Your task to perform on an android device: install app "YouTube Kids" Image 0: 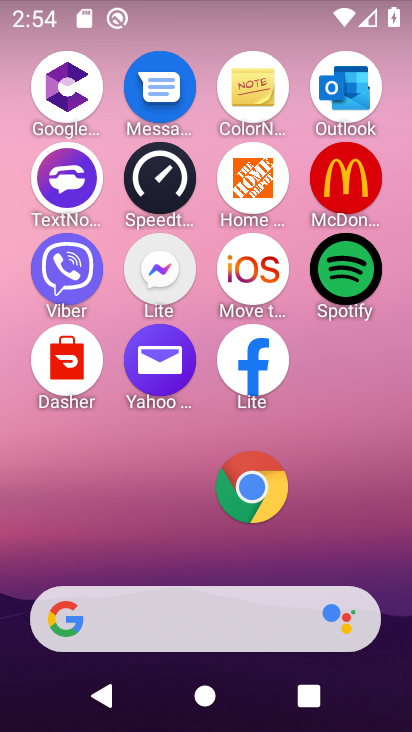
Step 0: drag from (191, 410) to (219, 125)
Your task to perform on an android device: install app "YouTube Kids" Image 1: 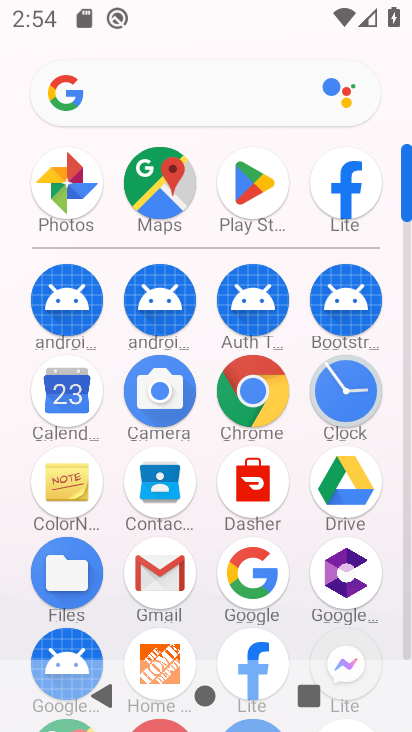
Step 1: click (243, 173)
Your task to perform on an android device: install app "YouTube Kids" Image 2: 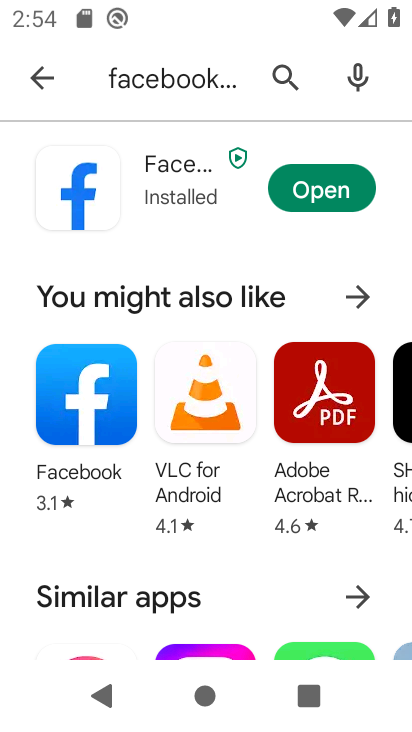
Step 2: click (48, 76)
Your task to perform on an android device: install app "YouTube Kids" Image 3: 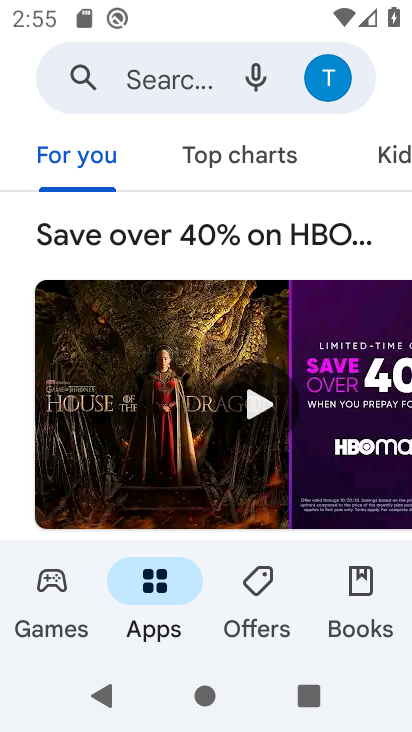
Step 3: click (182, 69)
Your task to perform on an android device: install app "YouTube Kids" Image 4: 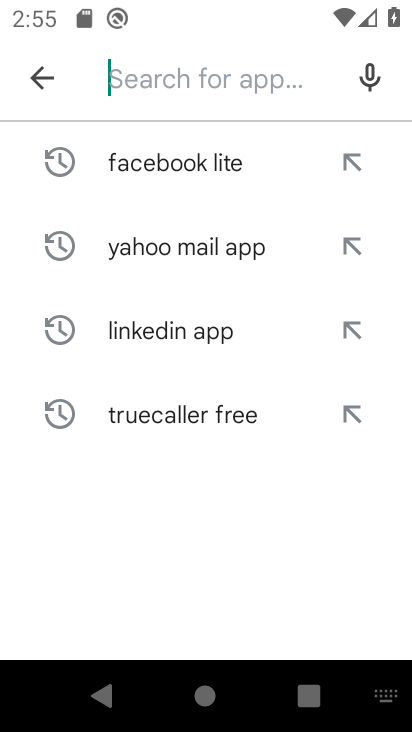
Step 4: type "YouTube Kids "
Your task to perform on an android device: install app "YouTube Kids" Image 5: 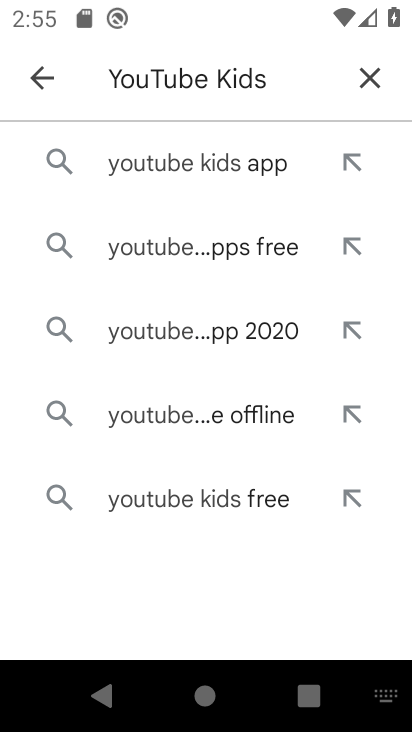
Step 5: click (218, 159)
Your task to perform on an android device: install app "YouTube Kids" Image 6: 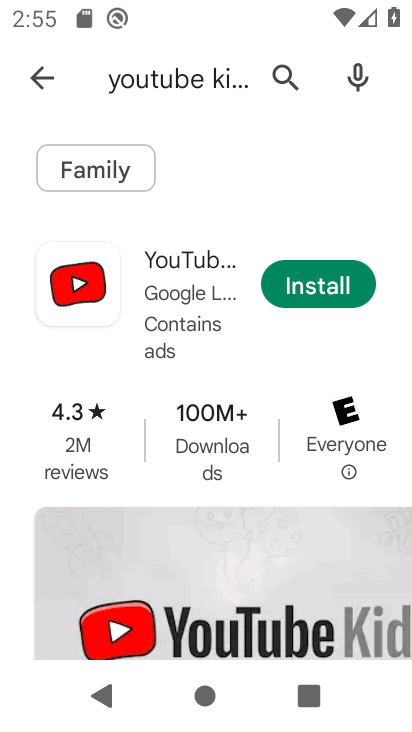
Step 6: click (313, 268)
Your task to perform on an android device: install app "YouTube Kids" Image 7: 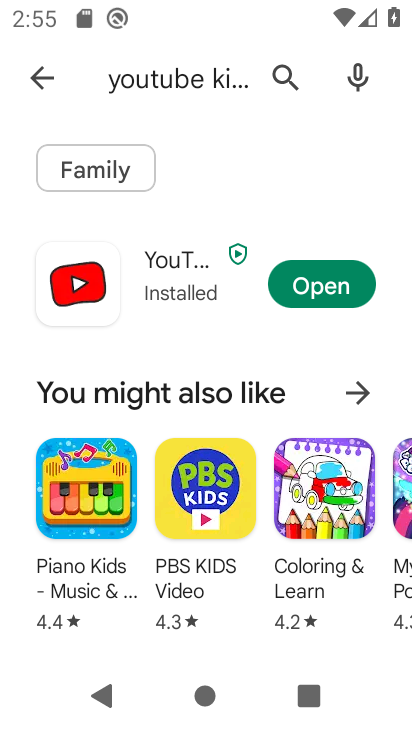
Step 7: task complete